Your task to perform on an android device: star an email in the gmail app Image 0: 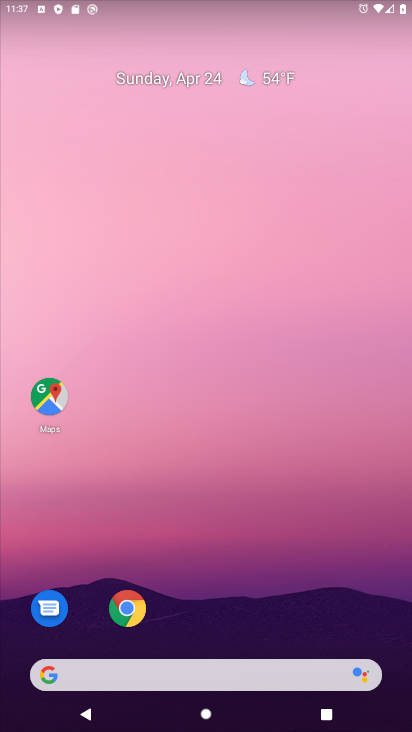
Step 0: drag from (392, 638) to (343, 12)
Your task to perform on an android device: star an email in the gmail app Image 1: 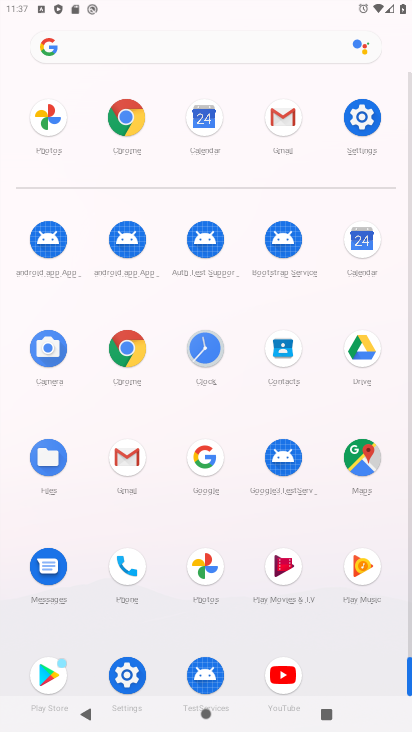
Step 1: click (122, 455)
Your task to perform on an android device: star an email in the gmail app Image 2: 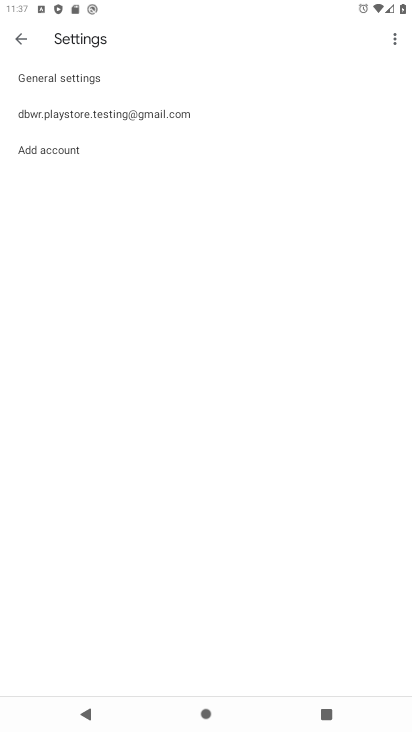
Step 2: press back button
Your task to perform on an android device: star an email in the gmail app Image 3: 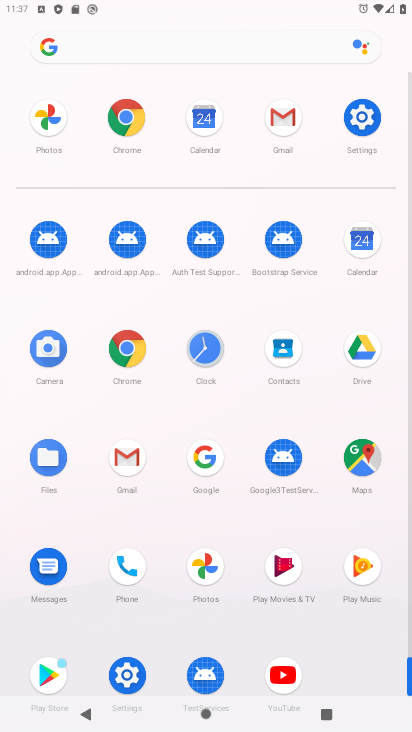
Step 3: click (123, 457)
Your task to perform on an android device: star an email in the gmail app Image 4: 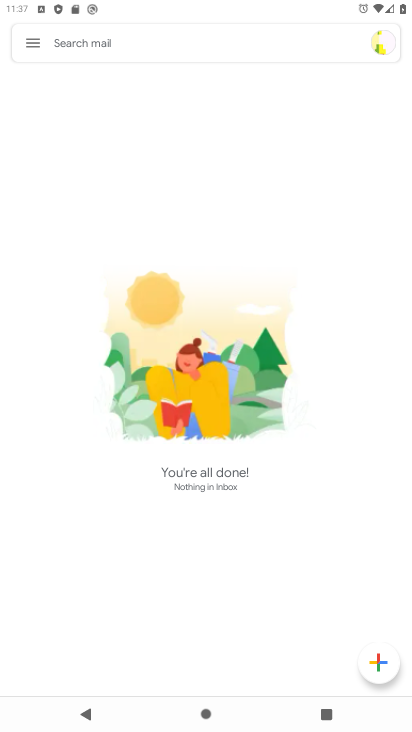
Step 4: click (34, 43)
Your task to perform on an android device: star an email in the gmail app Image 5: 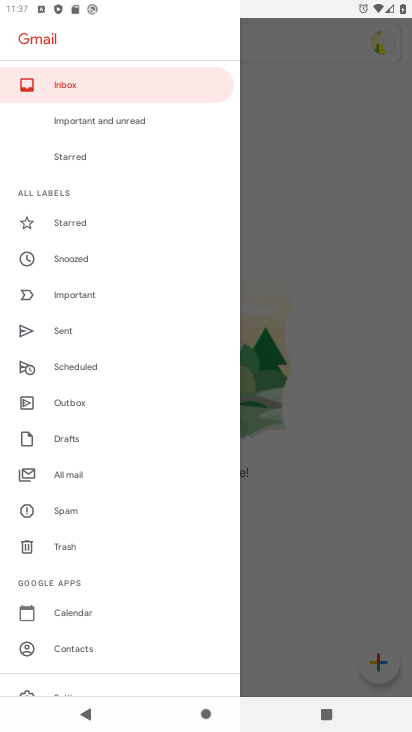
Step 5: click (70, 224)
Your task to perform on an android device: star an email in the gmail app Image 6: 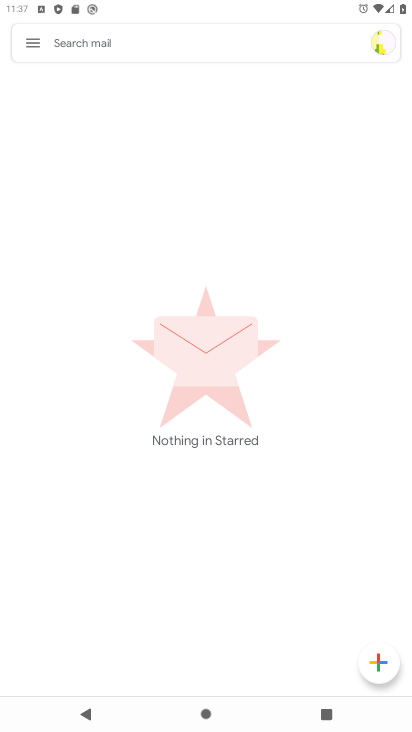
Step 6: click (29, 38)
Your task to perform on an android device: star an email in the gmail app Image 7: 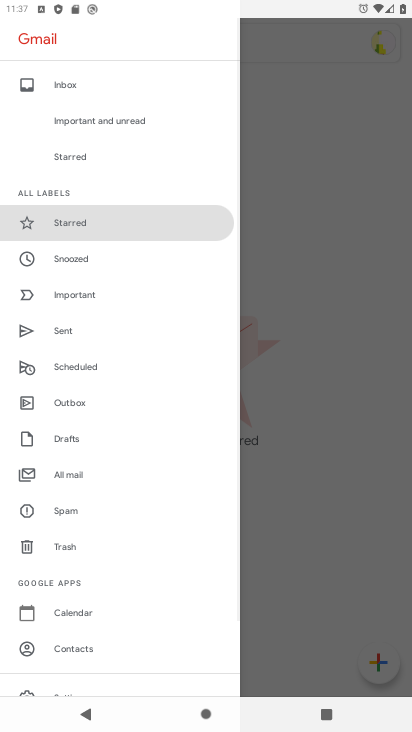
Step 7: click (63, 79)
Your task to perform on an android device: star an email in the gmail app Image 8: 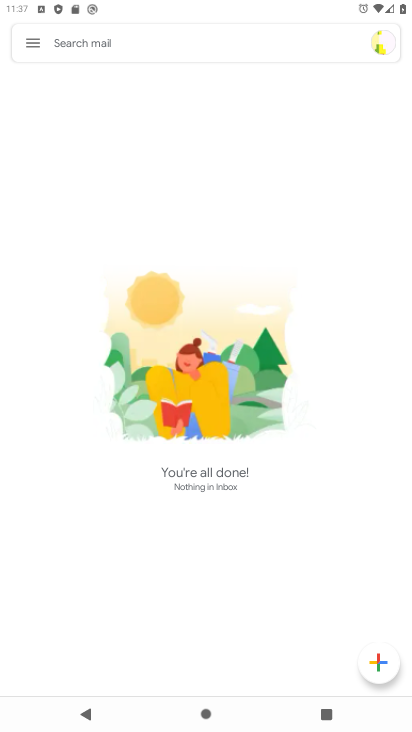
Step 8: task complete